Your task to perform on an android device: allow notifications from all sites in the chrome app Image 0: 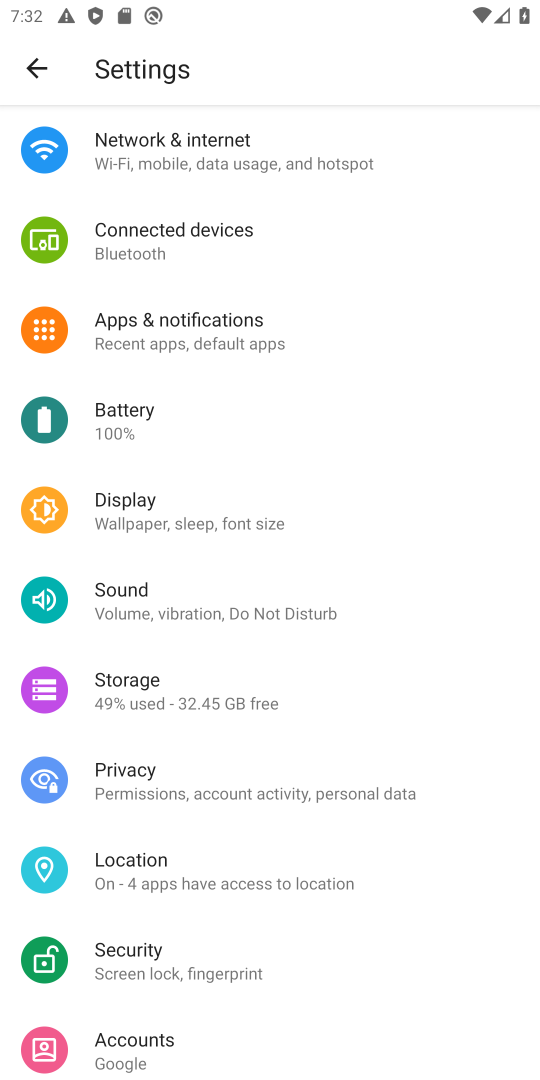
Step 0: press home button
Your task to perform on an android device: allow notifications from all sites in the chrome app Image 1: 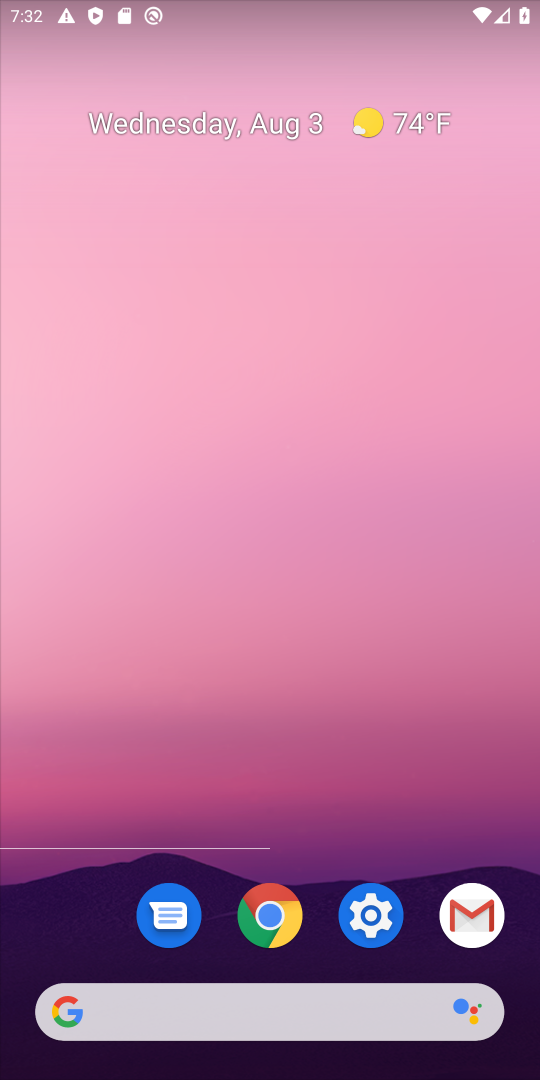
Step 1: drag from (356, 1049) to (266, 129)
Your task to perform on an android device: allow notifications from all sites in the chrome app Image 2: 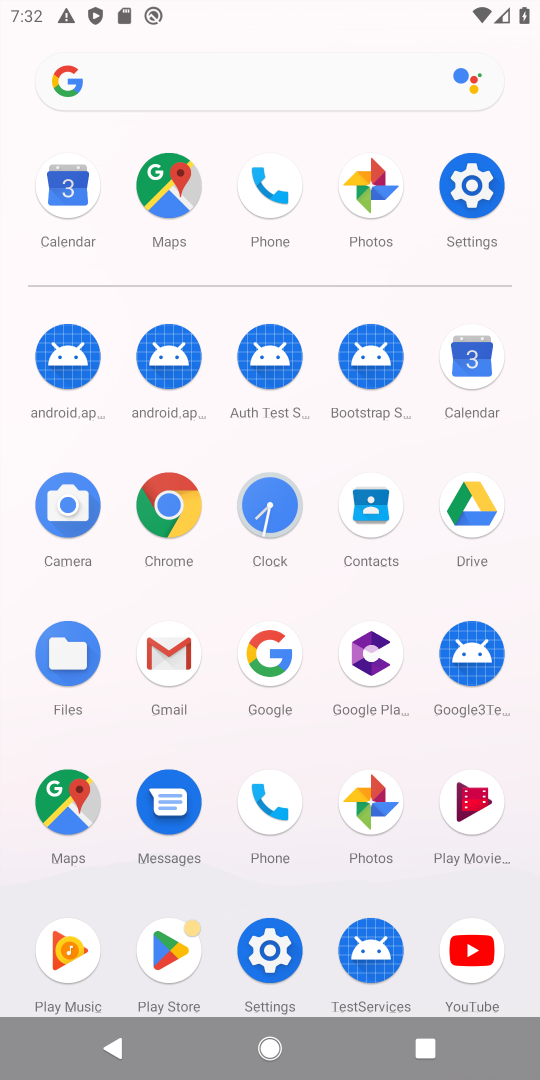
Step 2: click (182, 490)
Your task to perform on an android device: allow notifications from all sites in the chrome app Image 3: 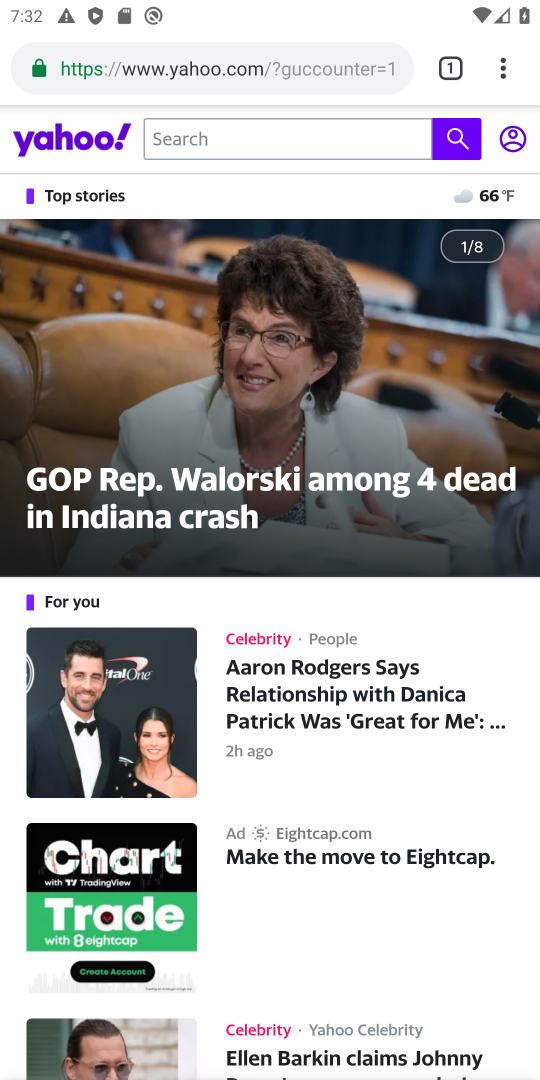
Step 3: click (492, 65)
Your task to perform on an android device: allow notifications from all sites in the chrome app Image 4: 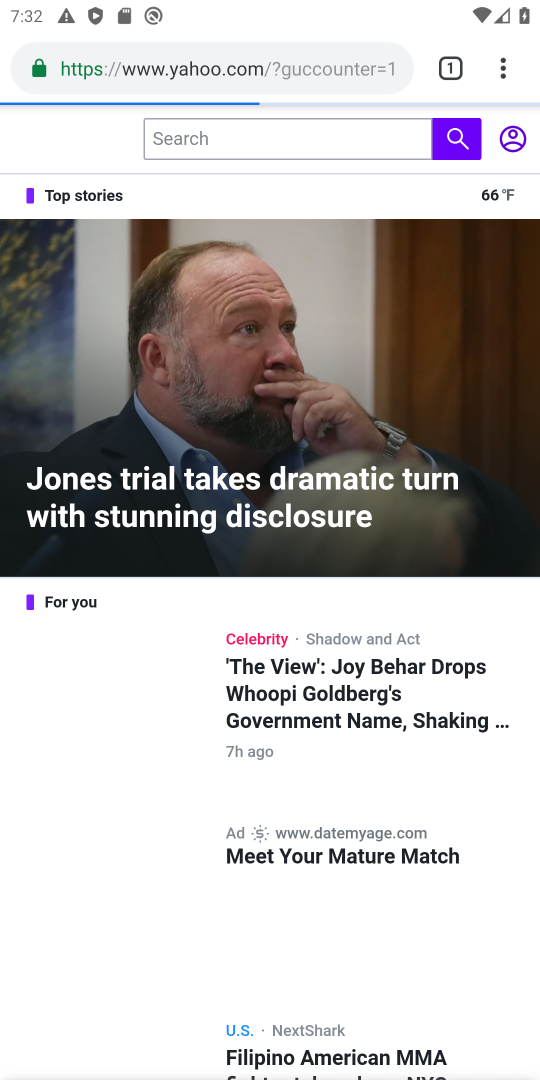
Step 4: click (505, 78)
Your task to perform on an android device: allow notifications from all sites in the chrome app Image 5: 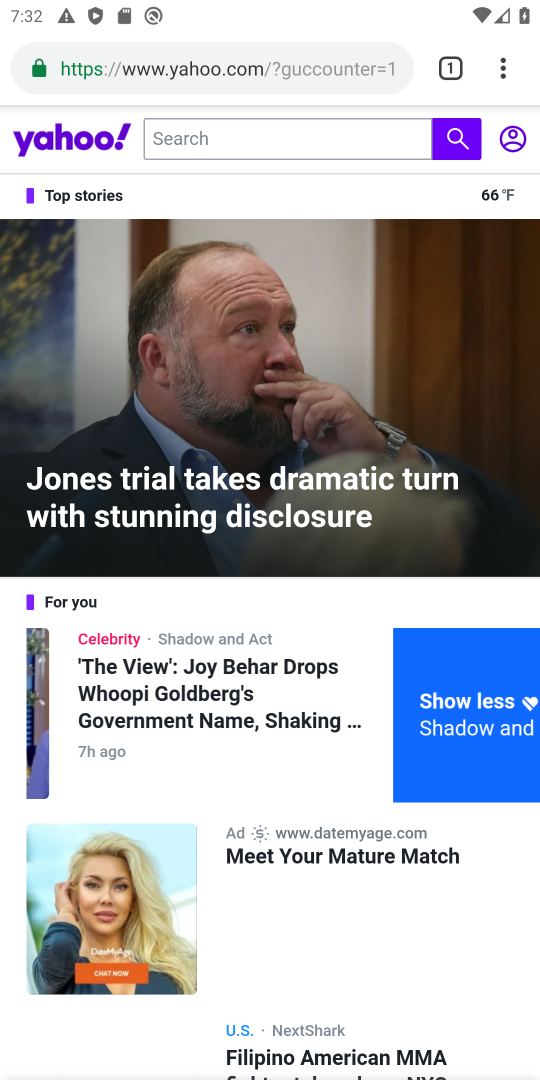
Step 5: click (488, 69)
Your task to perform on an android device: allow notifications from all sites in the chrome app Image 6: 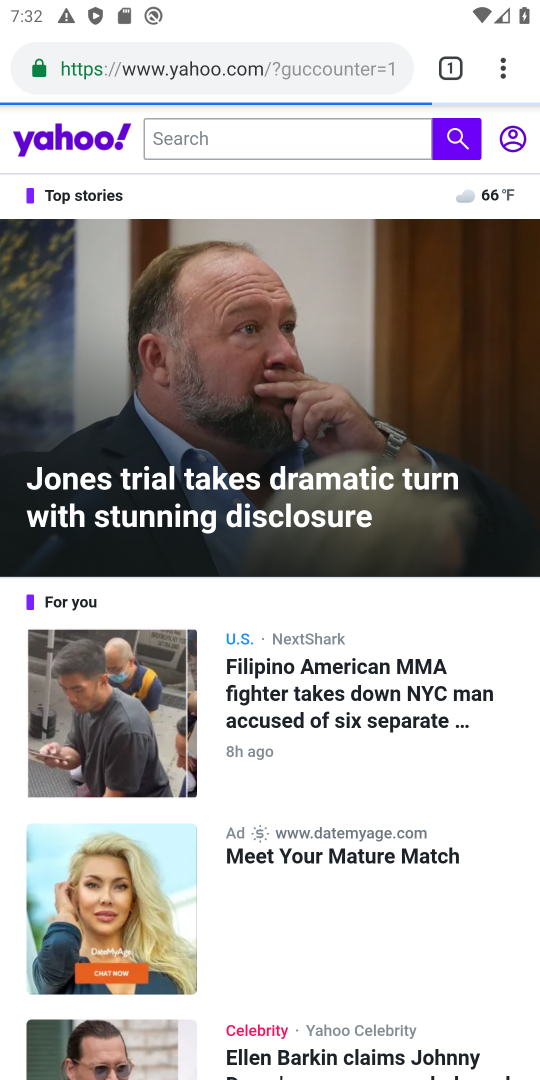
Step 6: click (496, 74)
Your task to perform on an android device: allow notifications from all sites in the chrome app Image 7: 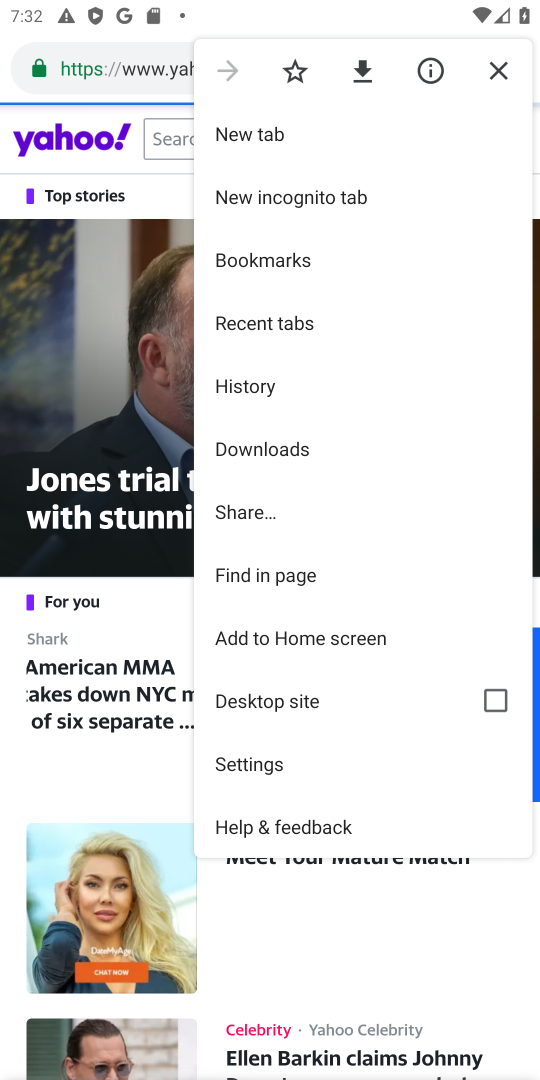
Step 7: click (257, 758)
Your task to perform on an android device: allow notifications from all sites in the chrome app Image 8: 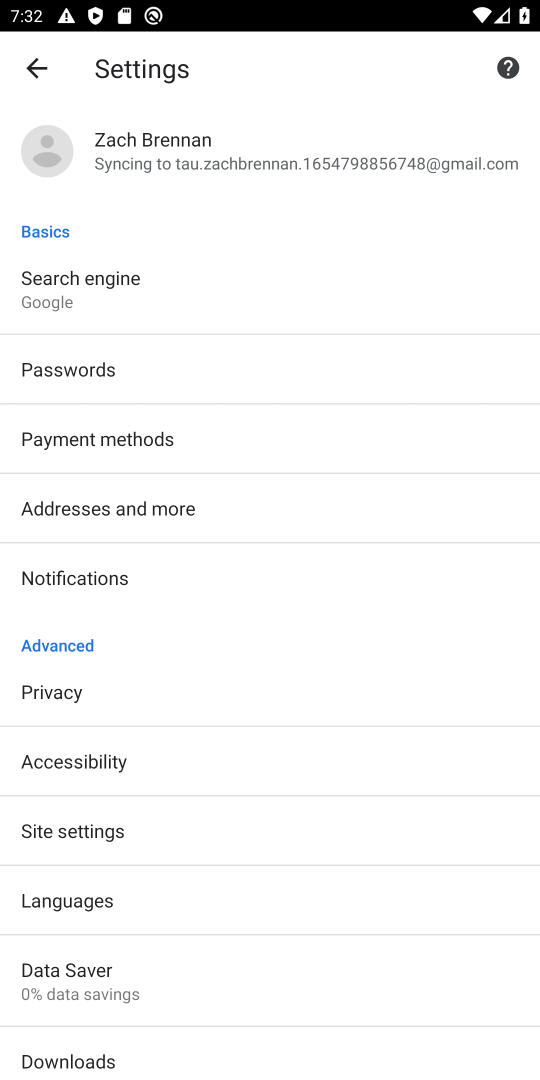
Step 8: click (72, 827)
Your task to perform on an android device: allow notifications from all sites in the chrome app Image 9: 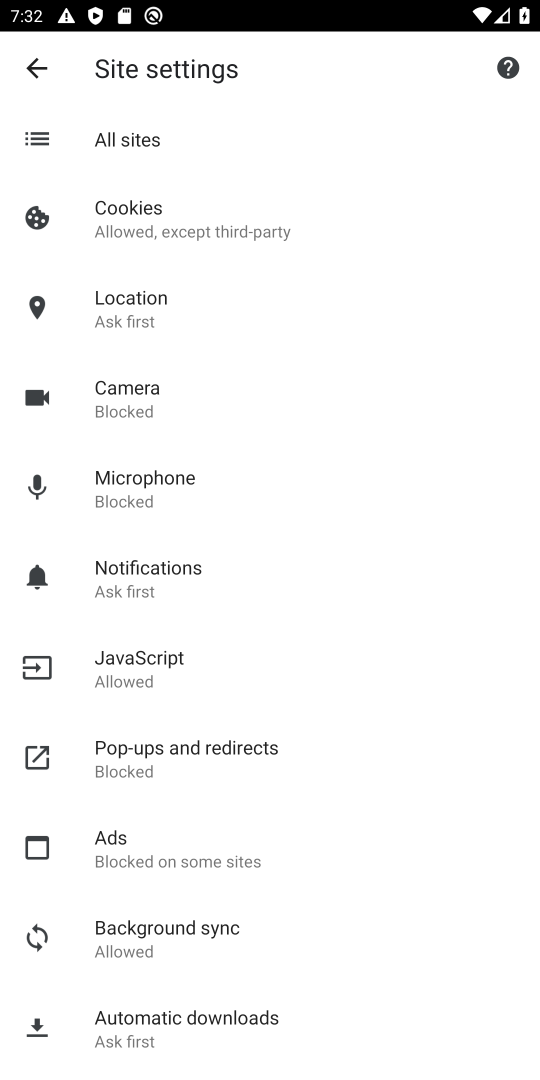
Step 9: click (183, 563)
Your task to perform on an android device: allow notifications from all sites in the chrome app Image 10: 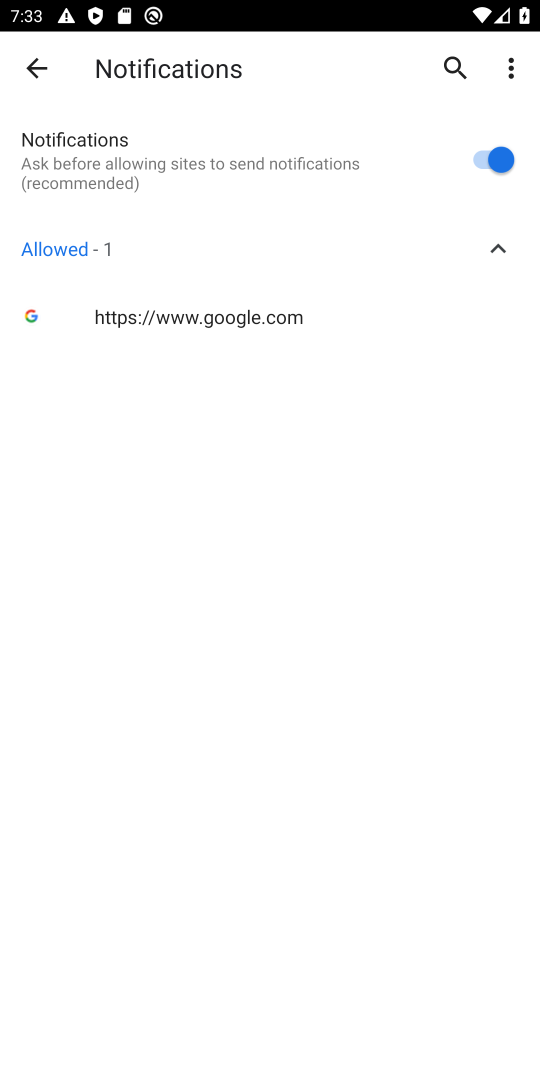
Step 10: click (479, 145)
Your task to perform on an android device: allow notifications from all sites in the chrome app Image 11: 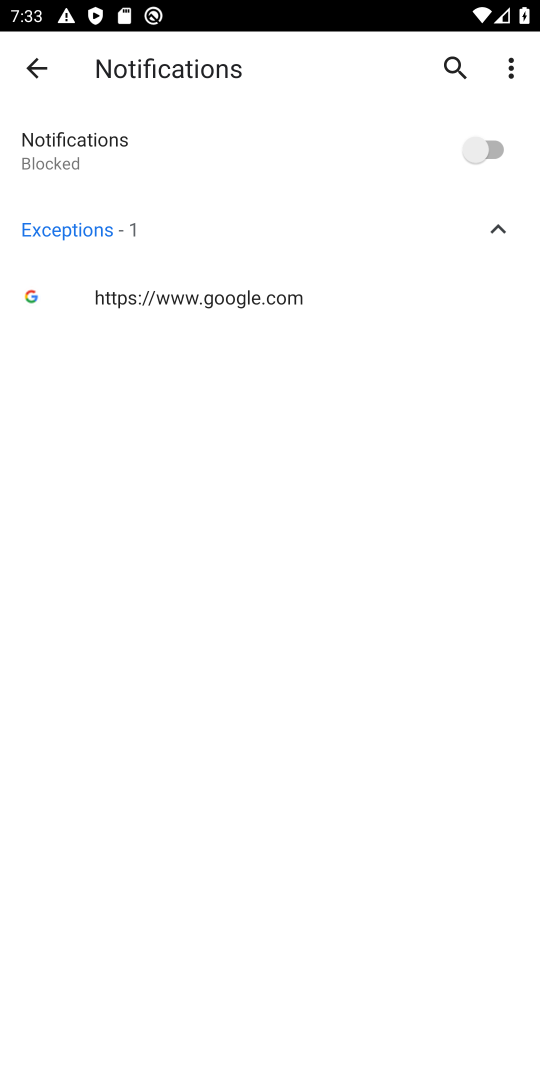
Step 11: click (478, 155)
Your task to perform on an android device: allow notifications from all sites in the chrome app Image 12: 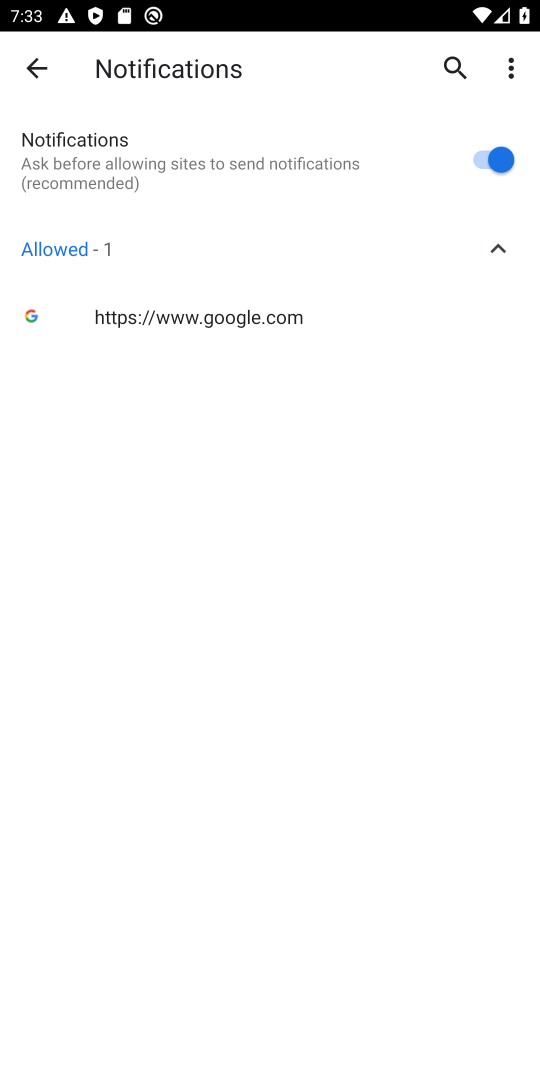
Step 12: task complete